Your task to perform on an android device: What's the weather going to be tomorrow? Image 0: 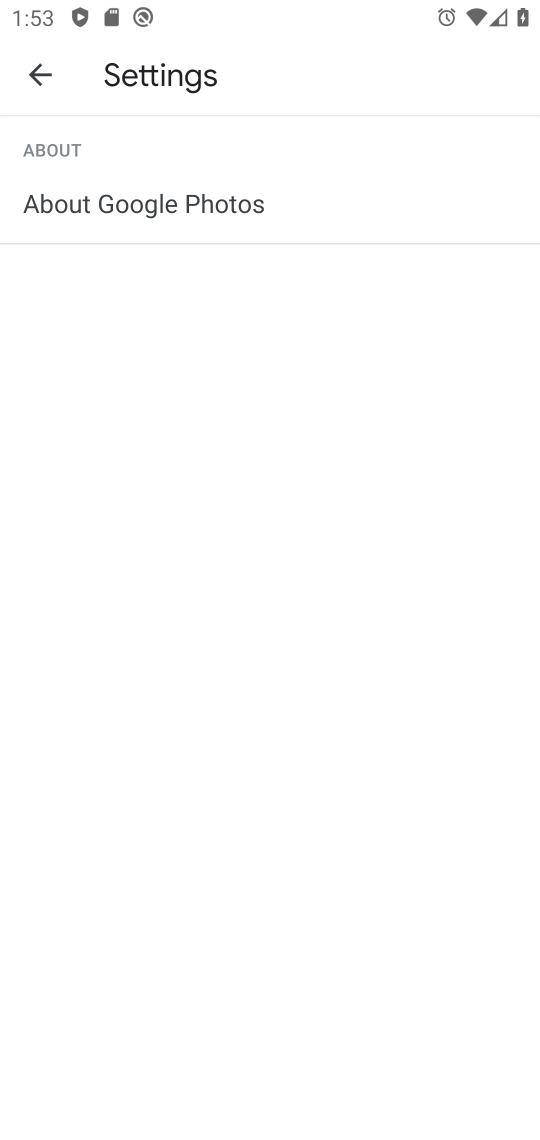
Step 0: press home button
Your task to perform on an android device: What's the weather going to be tomorrow? Image 1: 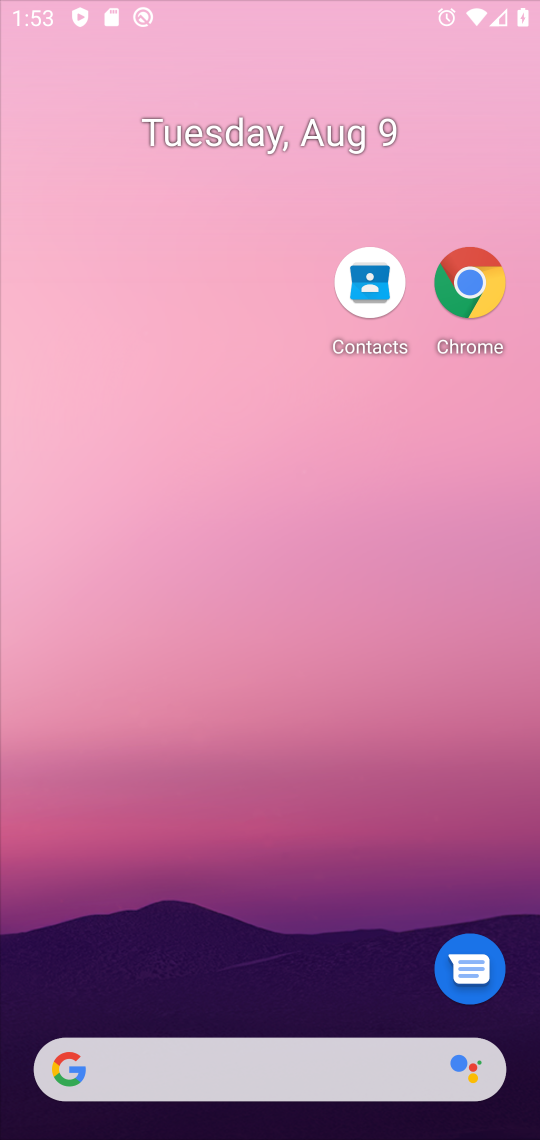
Step 1: drag from (379, 852) to (535, 310)
Your task to perform on an android device: What's the weather going to be tomorrow? Image 2: 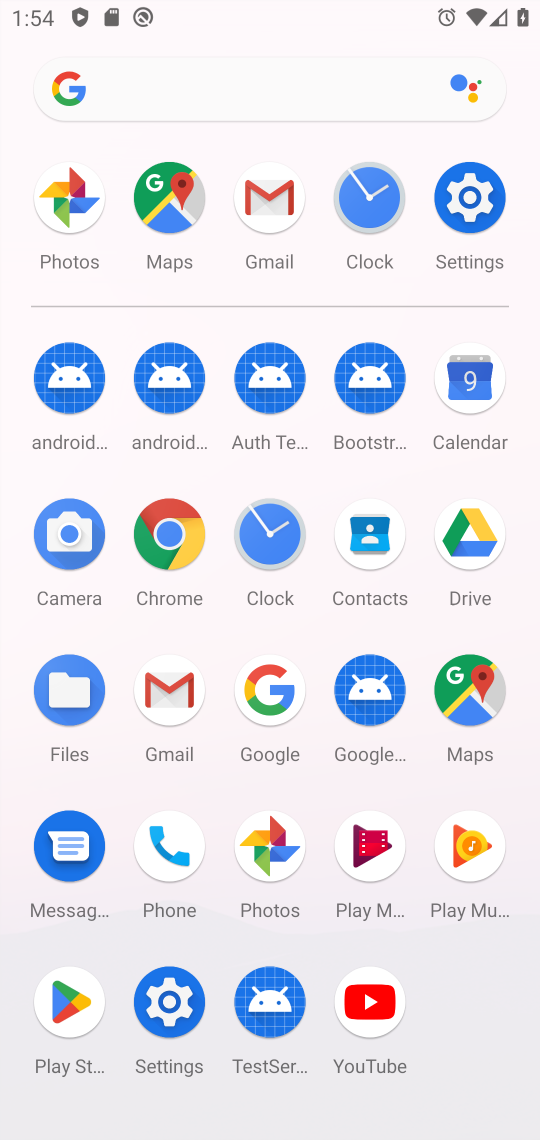
Step 2: click (162, 96)
Your task to perform on an android device: What's the weather going to be tomorrow? Image 3: 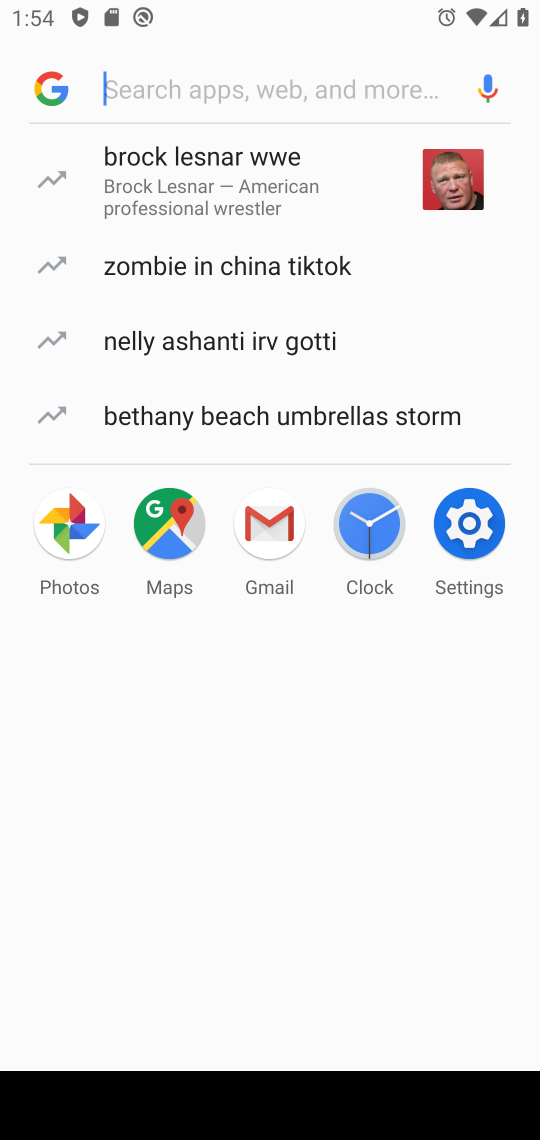
Step 3: type "What's the weather going to be tomorrow?"
Your task to perform on an android device: What's the weather going to be tomorrow? Image 4: 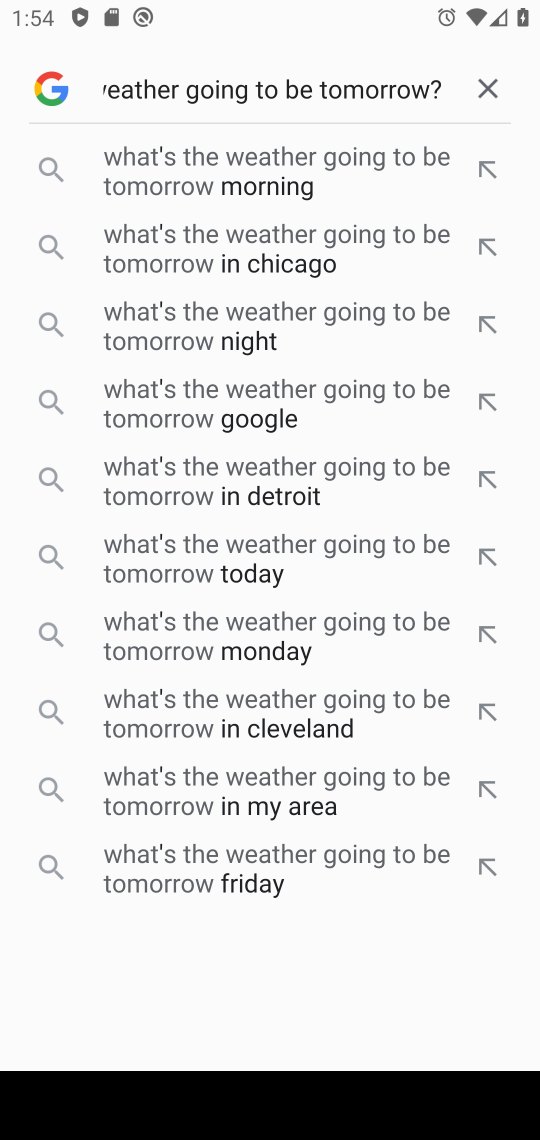
Step 4: click (265, 191)
Your task to perform on an android device: What's the weather going to be tomorrow? Image 5: 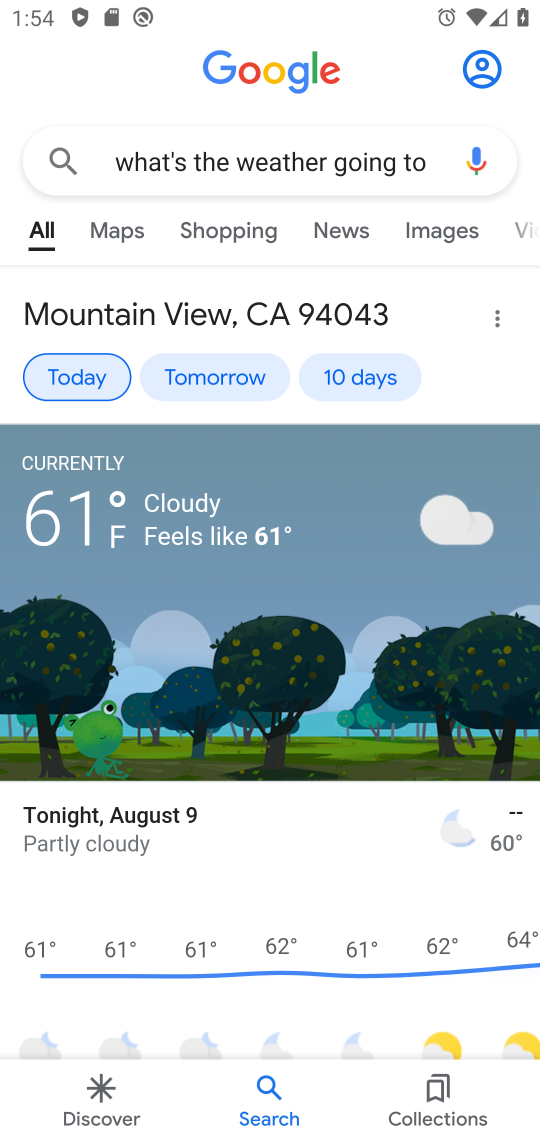
Step 5: task complete